Your task to perform on an android device: Open the phone app and click the voicemail tab. Image 0: 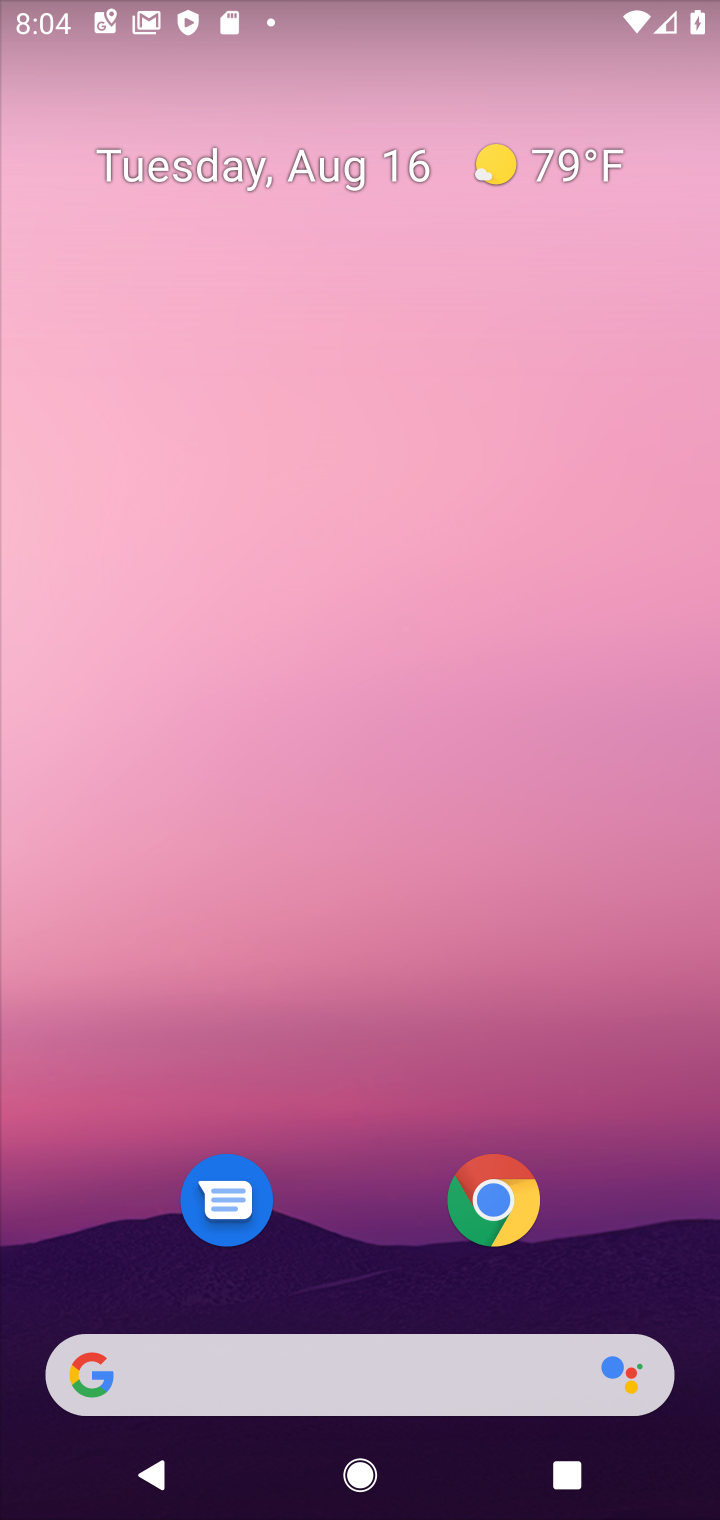
Step 0: drag from (647, 1265) to (531, 573)
Your task to perform on an android device: Open the phone app and click the voicemail tab. Image 1: 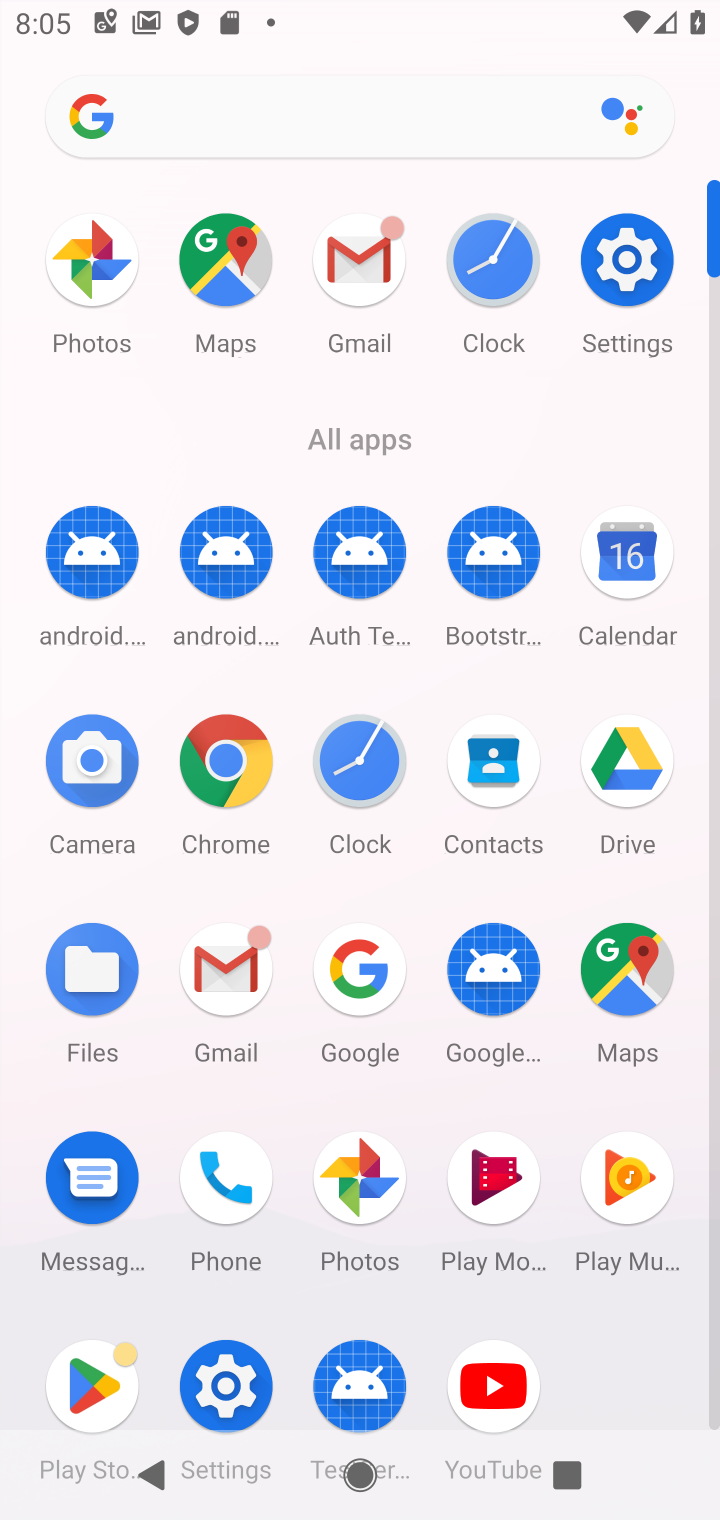
Step 1: click (218, 1169)
Your task to perform on an android device: Open the phone app and click the voicemail tab. Image 2: 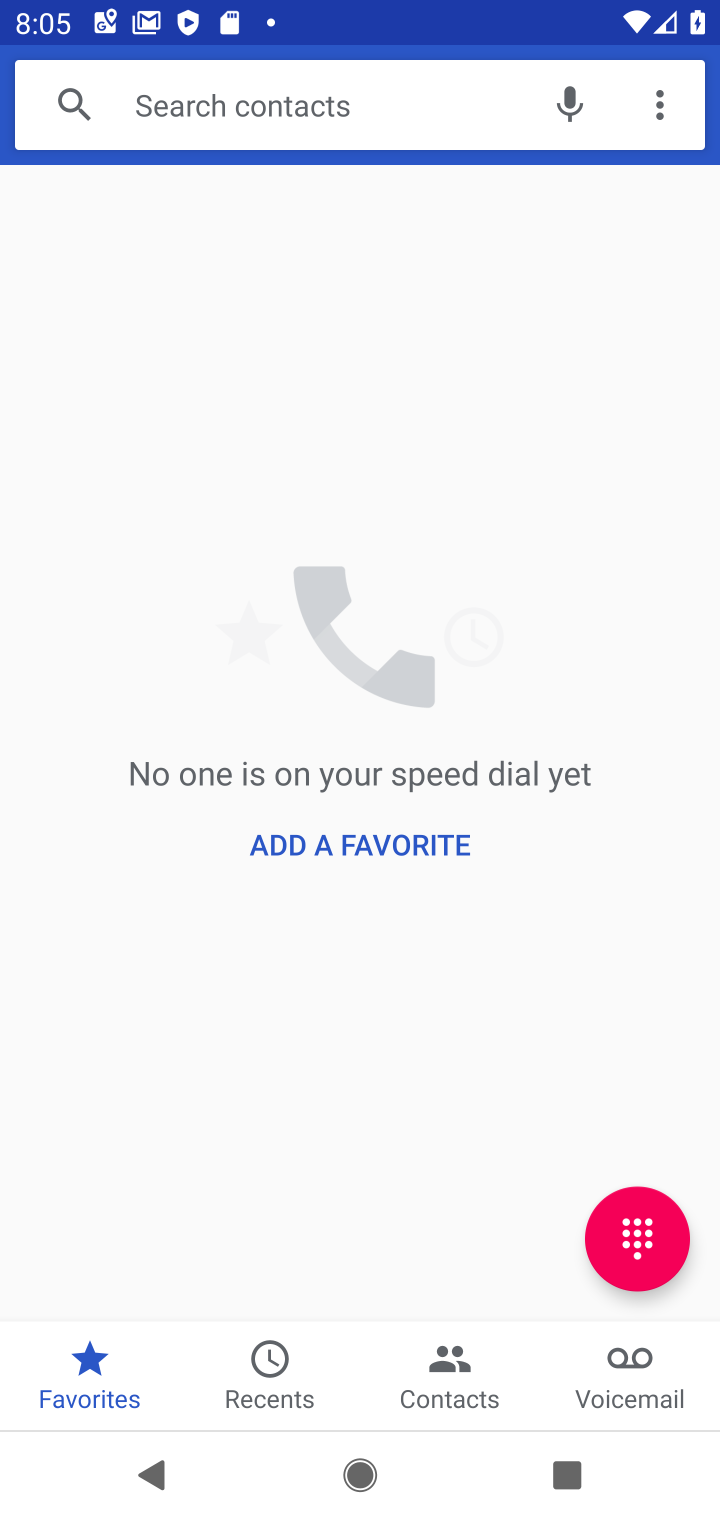
Step 2: click (607, 1375)
Your task to perform on an android device: Open the phone app and click the voicemail tab. Image 3: 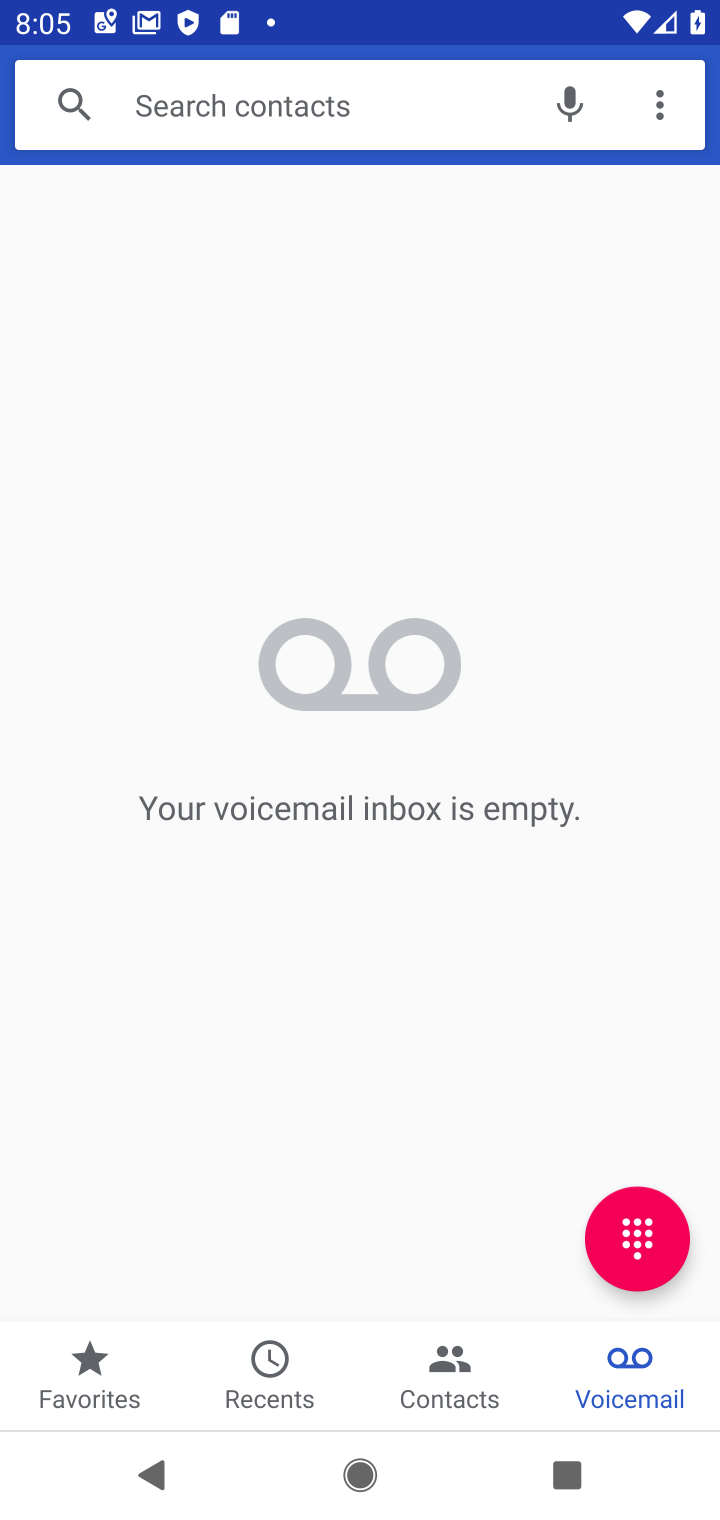
Step 3: task complete